Your task to perform on an android device: move a message to another label in the gmail app Image 0: 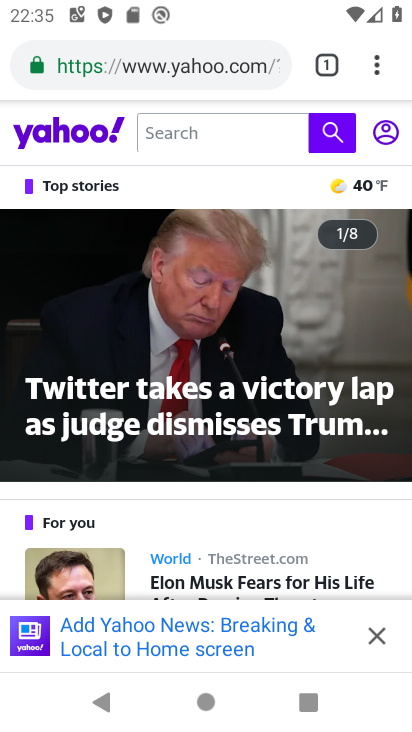
Step 0: press home button
Your task to perform on an android device: move a message to another label in the gmail app Image 1: 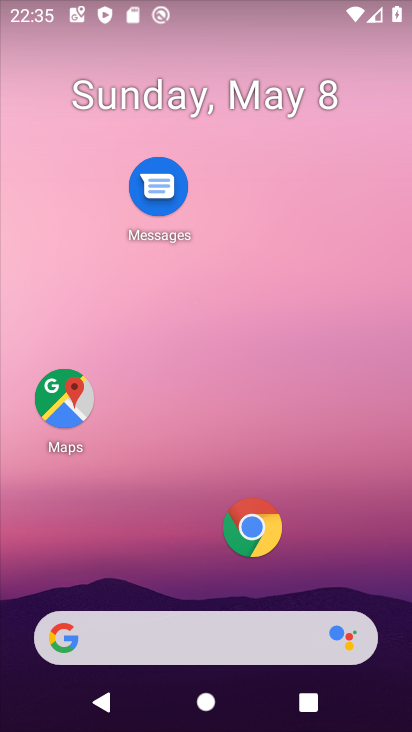
Step 1: drag from (158, 509) to (221, 38)
Your task to perform on an android device: move a message to another label in the gmail app Image 2: 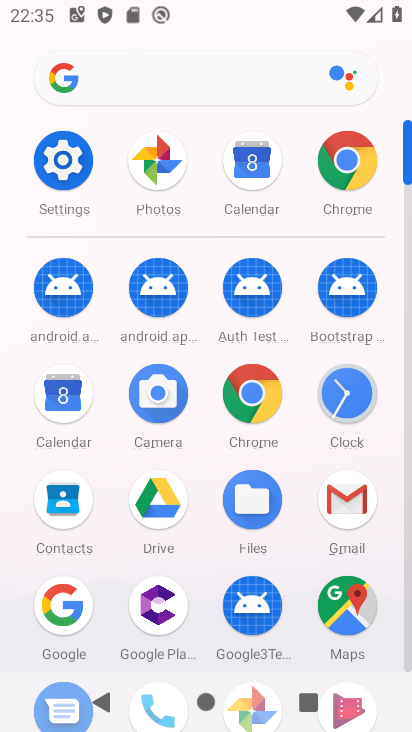
Step 2: click (348, 484)
Your task to perform on an android device: move a message to another label in the gmail app Image 3: 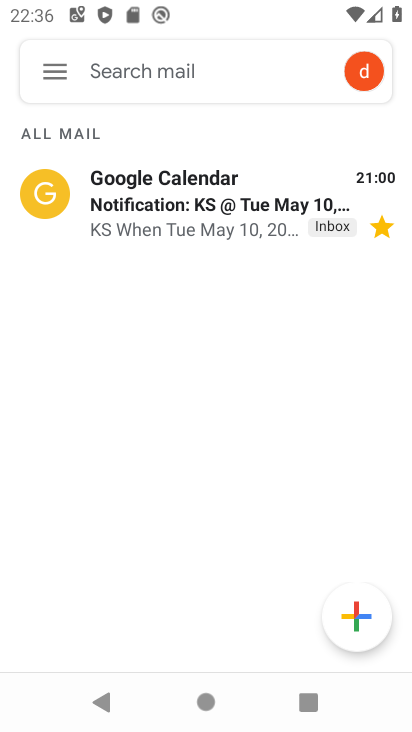
Step 3: click (194, 191)
Your task to perform on an android device: move a message to another label in the gmail app Image 4: 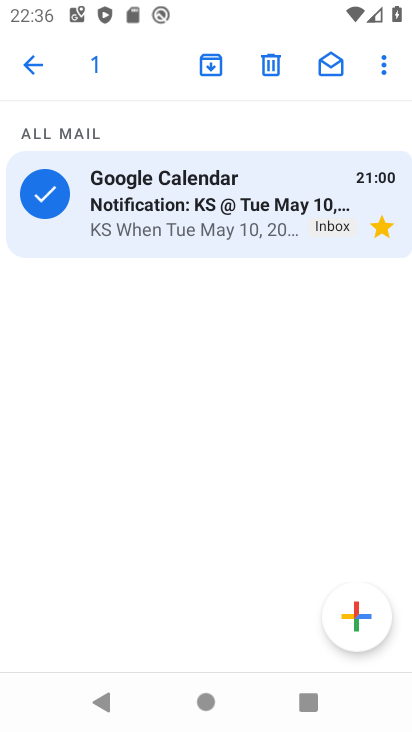
Step 4: click (377, 64)
Your task to perform on an android device: move a message to another label in the gmail app Image 5: 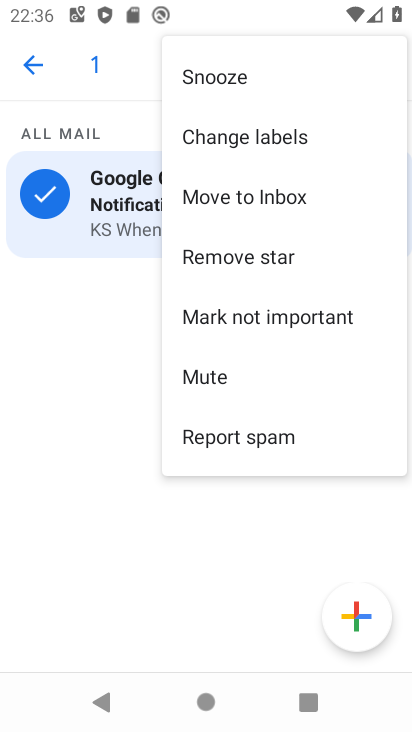
Step 5: click (248, 139)
Your task to perform on an android device: move a message to another label in the gmail app Image 6: 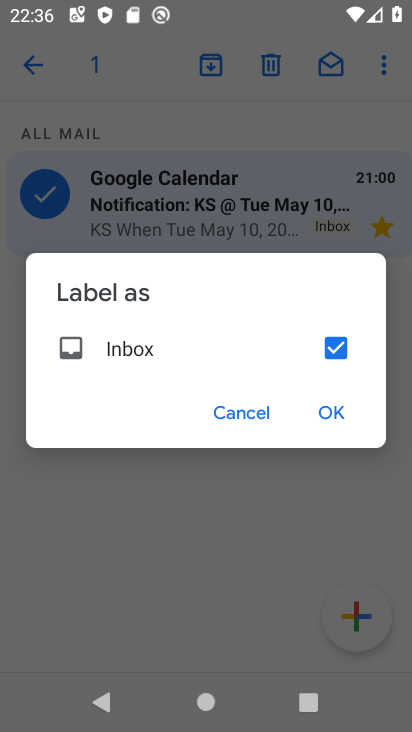
Step 6: click (329, 422)
Your task to perform on an android device: move a message to another label in the gmail app Image 7: 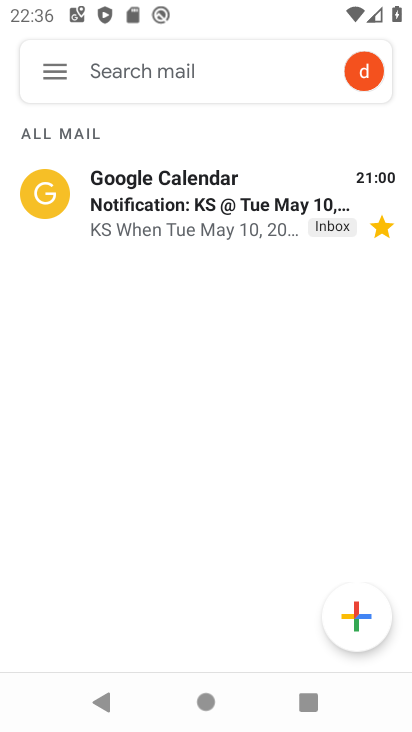
Step 7: task complete